Your task to perform on an android device: Go to calendar. Show me events next week Image 0: 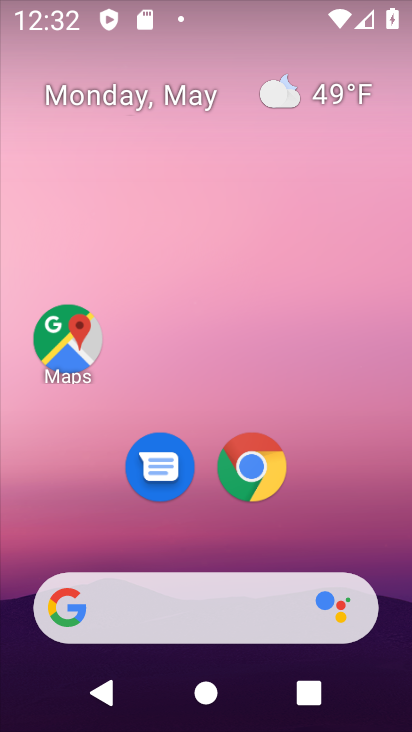
Step 0: drag from (359, 532) to (370, 134)
Your task to perform on an android device: Go to calendar. Show me events next week Image 1: 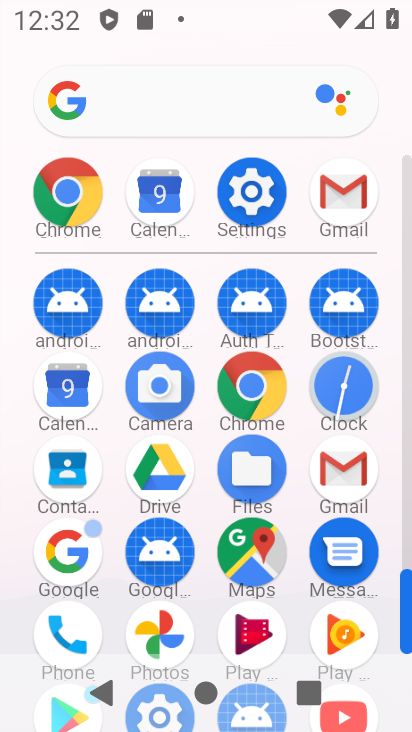
Step 1: click (82, 385)
Your task to perform on an android device: Go to calendar. Show me events next week Image 2: 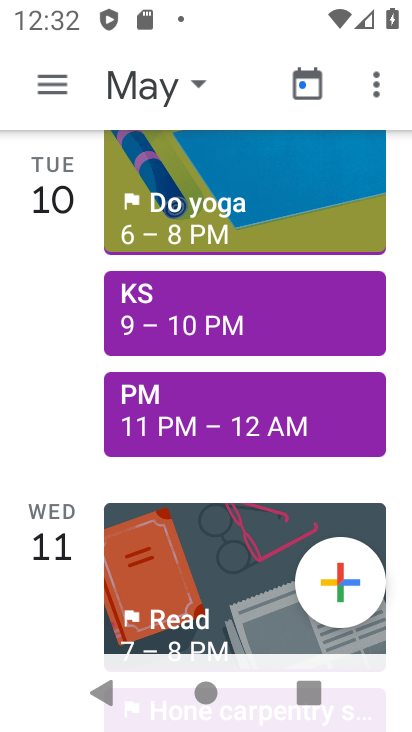
Step 2: task complete